Your task to perform on an android device: turn off translation in the chrome app Image 0: 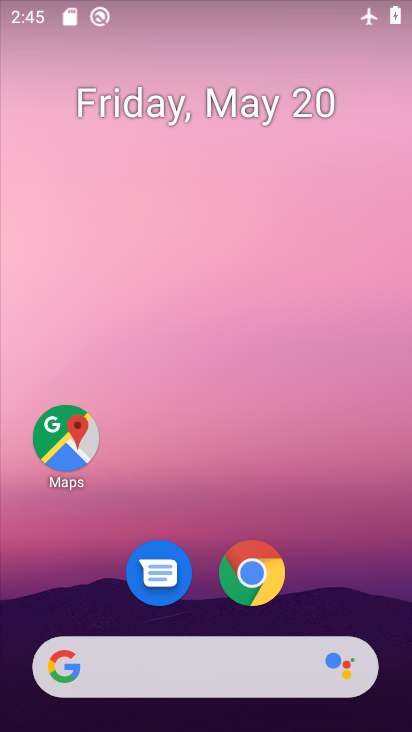
Step 0: click (238, 590)
Your task to perform on an android device: turn off translation in the chrome app Image 1: 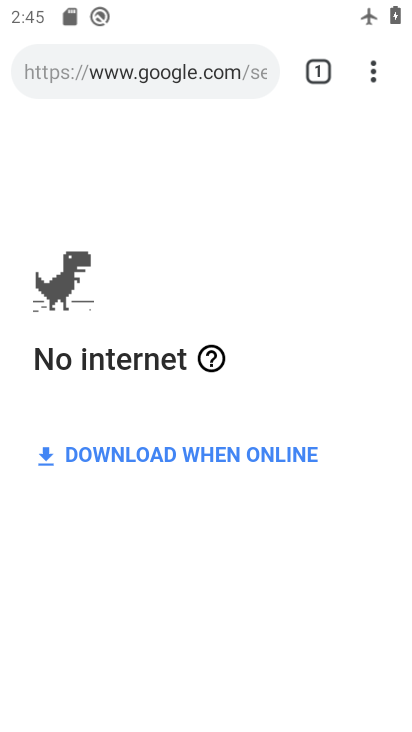
Step 1: click (367, 77)
Your task to perform on an android device: turn off translation in the chrome app Image 2: 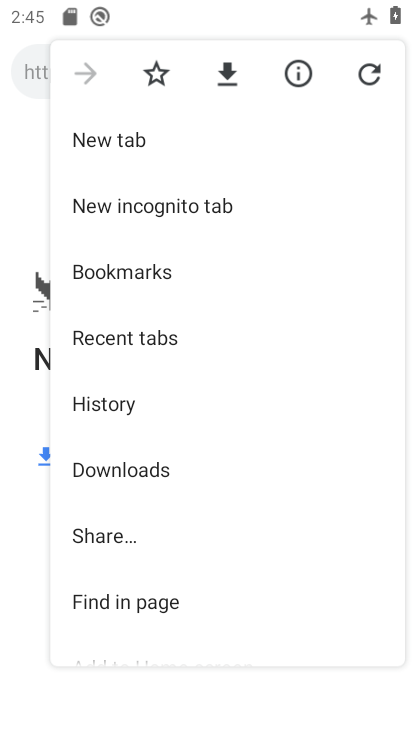
Step 2: drag from (198, 538) to (211, 350)
Your task to perform on an android device: turn off translation in the chrome app Image 3: 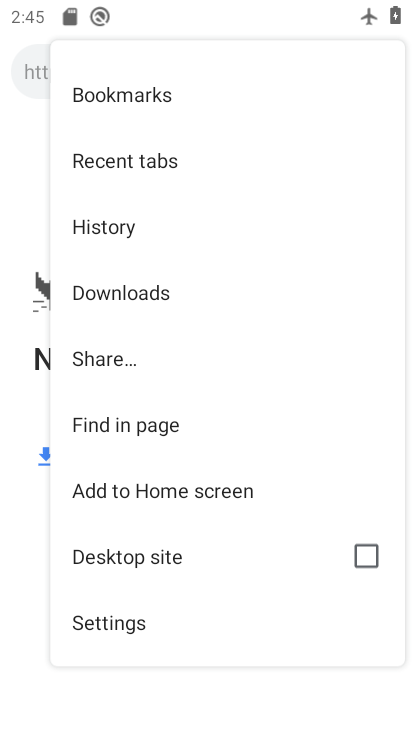
Step 3: drag from (194, 533) to (206, 346)
Your task to perform on an android device: turn off translation in the chrome app Image 4: 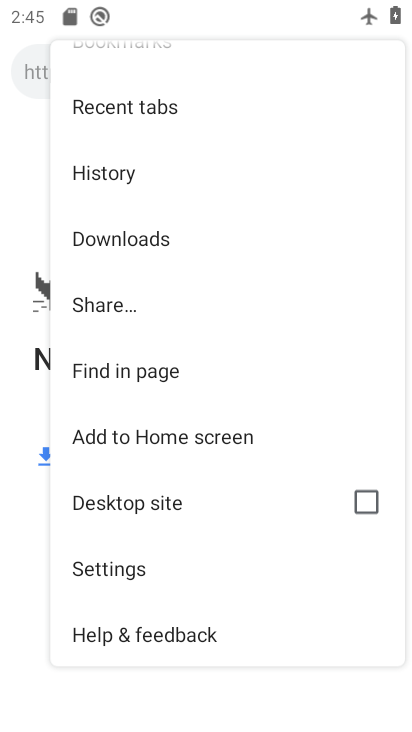
Step 4: click (127, 557)
Your task to perform on an android device: turn off translation in the chrome app Image 5: 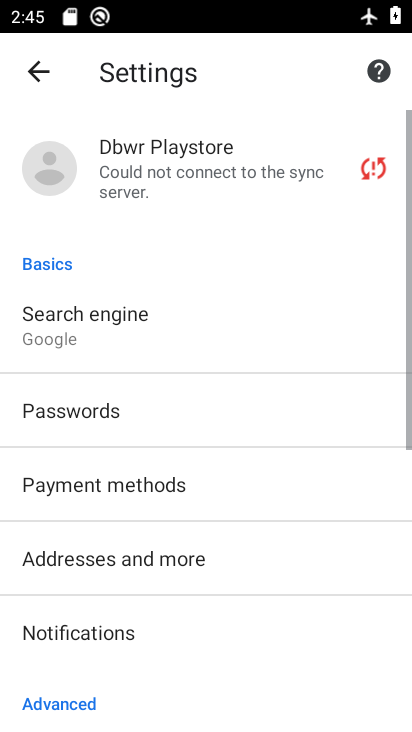
Step 5: drag from (160, 581) to (179, 281)
Your task to perform on an android device: turn off translation in the chrome app Image 6: 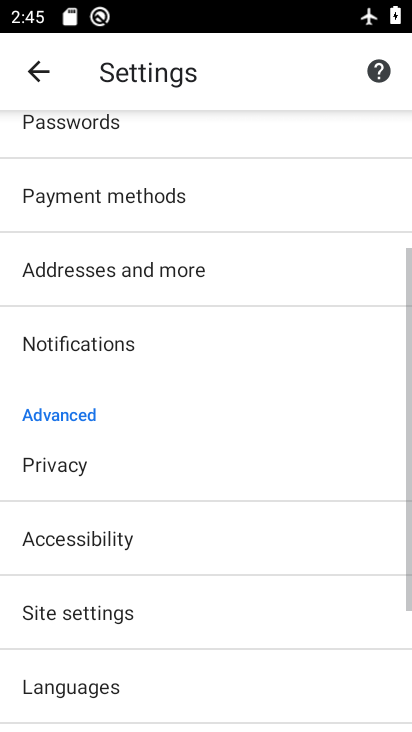
Step 6: drag from (182, 597) to (201, 457)
Your task to perform on an android device: turn off translation in the chrome app Image 7: 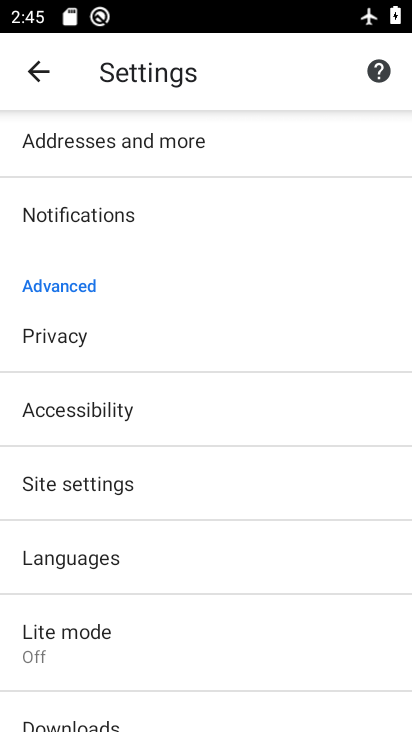
Step 7: click (117, 555)
Your task to perform on an android device: turn off translation in the chrome app Image 8: 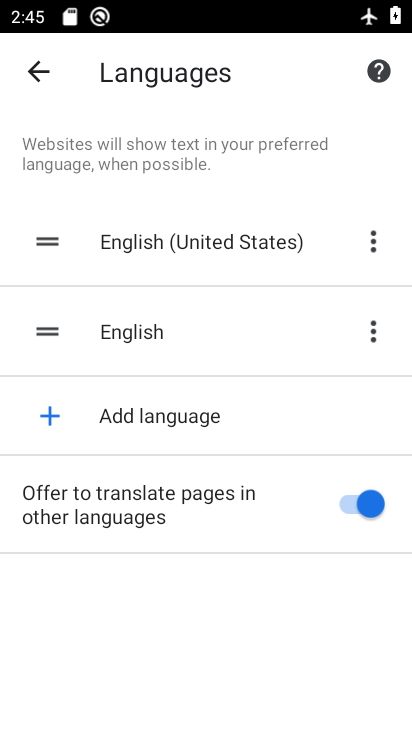
Step 8: click (342, 493)
Your task to perform on an android device: turn off translation in the chrome app Image 9: 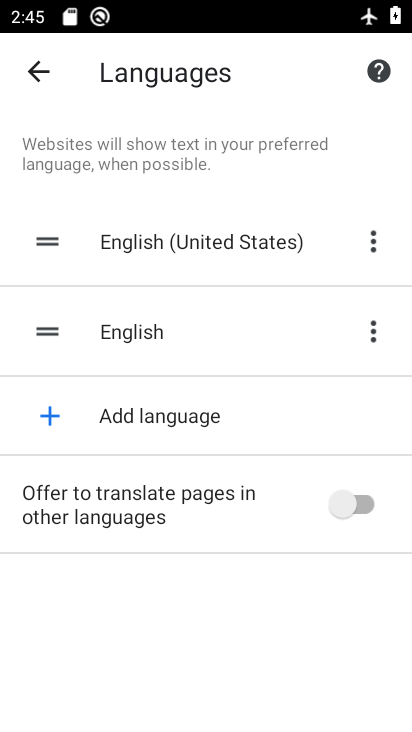
Step 9: task complete